Your task to perform on an android device: Search for nike dri-fit shirts on Nike Image 0: 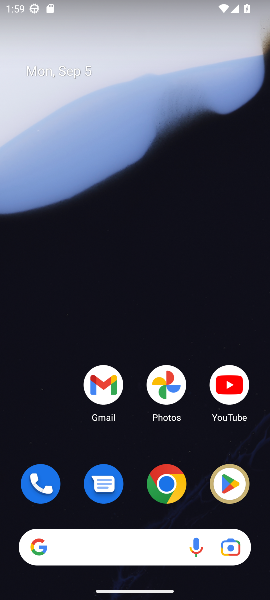
Step 0: click (168, 485)
Your task to perform on an android device: Search for nike dri-fit shirts on Nike Image 1: 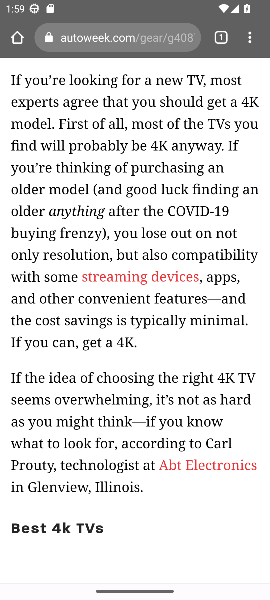
Step 1: click (90, 42)
Your task to perform on an android device: Search for nike dri-fit shirts on Nike Image 2: 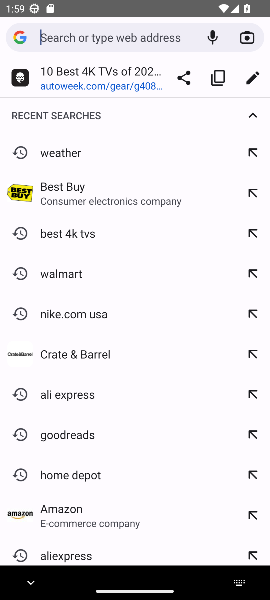
Step 2: type " Nike"
Your task to perform on an android device: Search for nike dri-fit shirts on Nike Image 3: 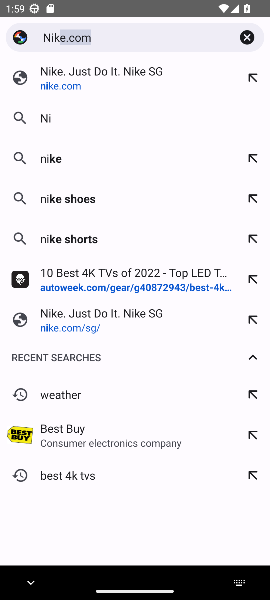
Step 3: press enter
Your task to perform on an android device: Search for nike dri-fit shirts on Nike Image 4: 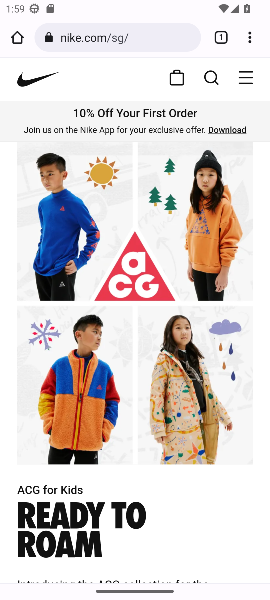
Step 4: click (203, 67)
Your task to perform on an android device: Search for nike dri-fit shirts on Nike Image 5: 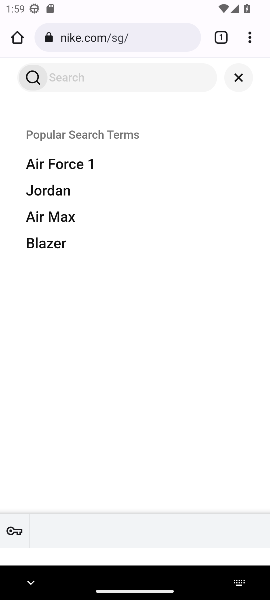
Step 5: click (101, 77)
Your task to perform on an android device: Search for nike dri-fit shirts on Nike Image 6: 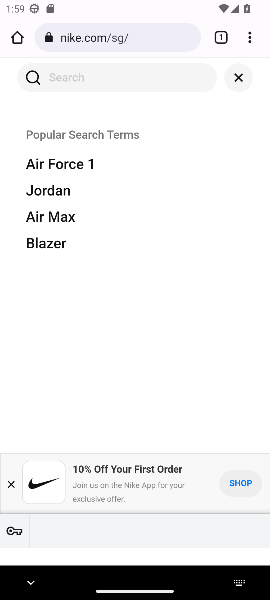
Step 6: type "dri-fit "
Your task to perform on an android device: Search for nike dri-fit shirts on Nike Image 7: 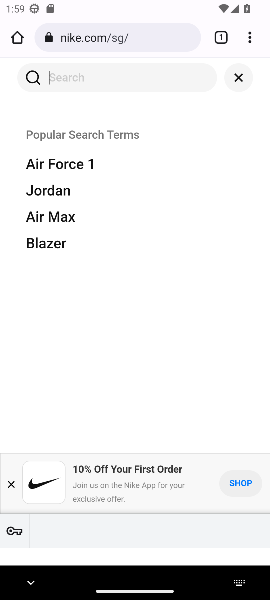
Step 7: press enter
Your task to perform on an android device: Search for nike dri-fit shirts on Nike Image 8: 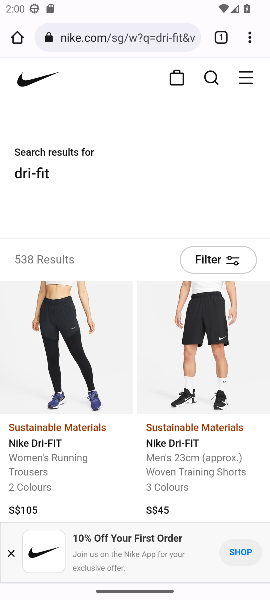
Step 8: task complete